Your task to perform on an android device: Show me popular games on the Play Store Image 0: 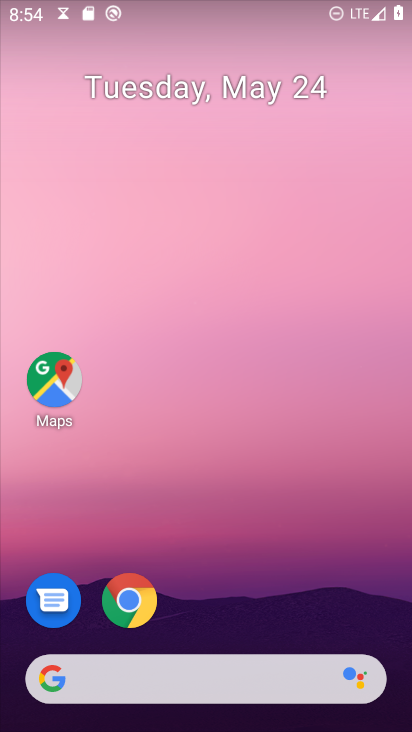
Step 0: drag from (146, 536) to (272, 61)
Your task to perform on an android device: Show me popular games on the Play Store Image 1: 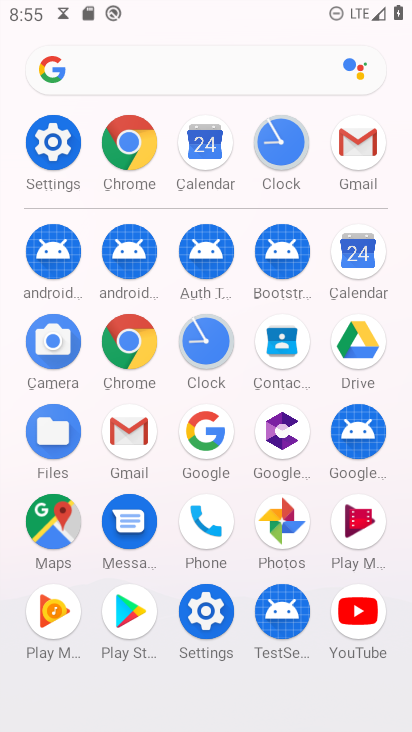
Step 1: click (116, 609)
Your task to perform on an android device: Show me popular games on the Play Store Image 2: 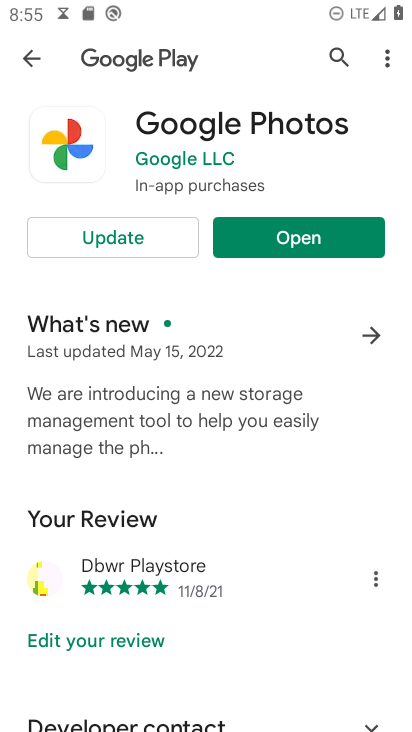
Step 2: click (29, 49)
Your task to perform on an android device: Show me popular games on the Play Store Image 3: 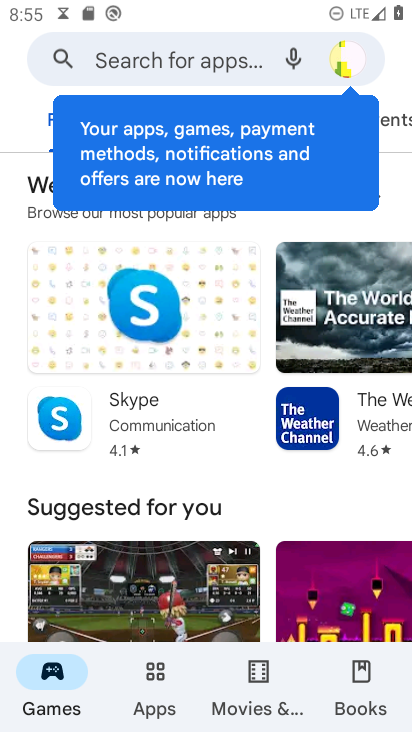
Step 3: drag from (162, 552) to (266, 66)
Your task to perform on an android device: Show me popular games on the Play Store Image 4: 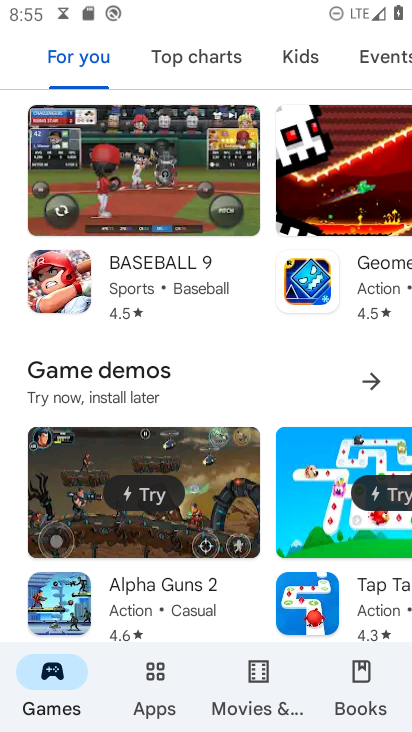
Step 4: drag from (208, 512) to (312, 126)
Your task to perform on an android device: Show me popular games on the Play Store Image 5: 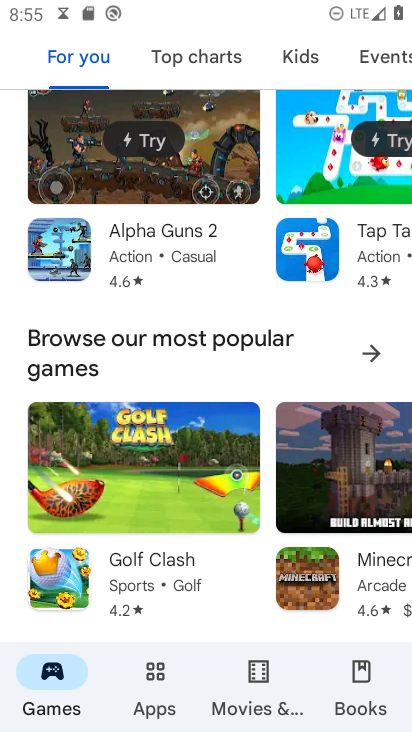
Step 5: click (365, 350)
Your task to perform on an android device: Show me popular games on the Play Store Image 6: 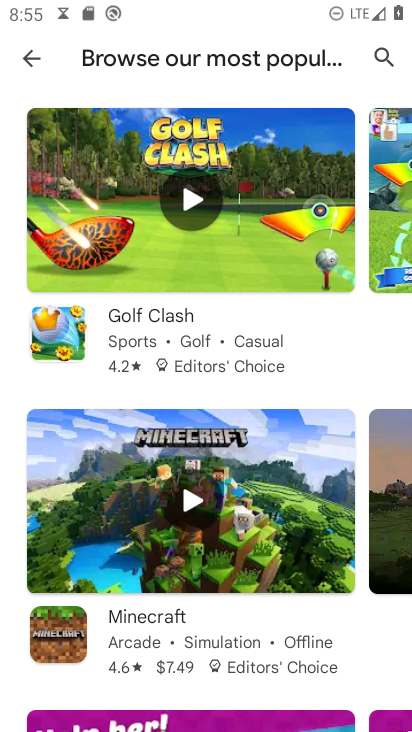
Step 6: task complete